Your task to perform on an android device: create a new album in the google photos Image 0: 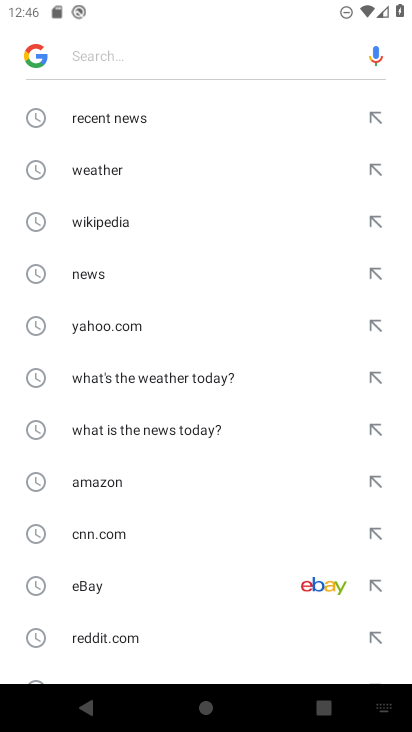
Step 0: press home button
Your task to perform on an android device: create a new album in the google photos Image 1: 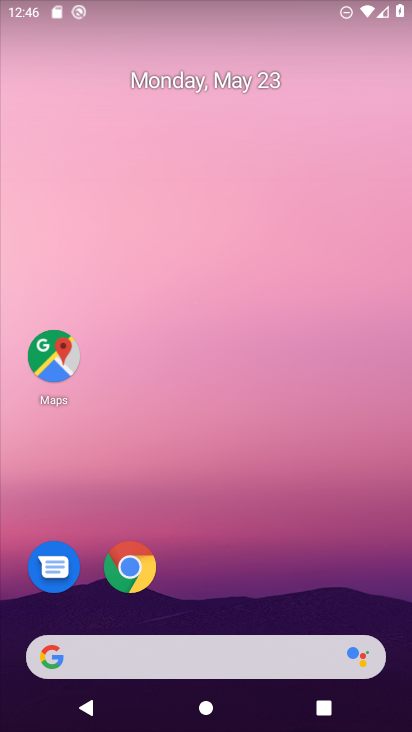
Step 1: drag from (185, 600) to (224, 227)
Your task to perform on an android device: create a new album in the google photos Image 2: 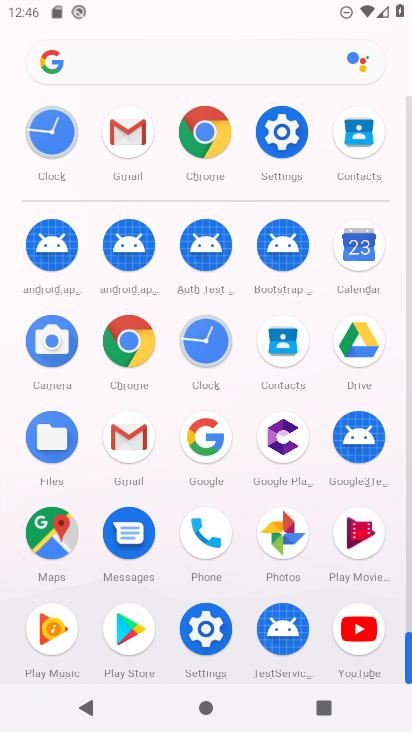
Step 2: click (275, 545)
Your task to perform on an android device: create a new album in the google photos Image 3: 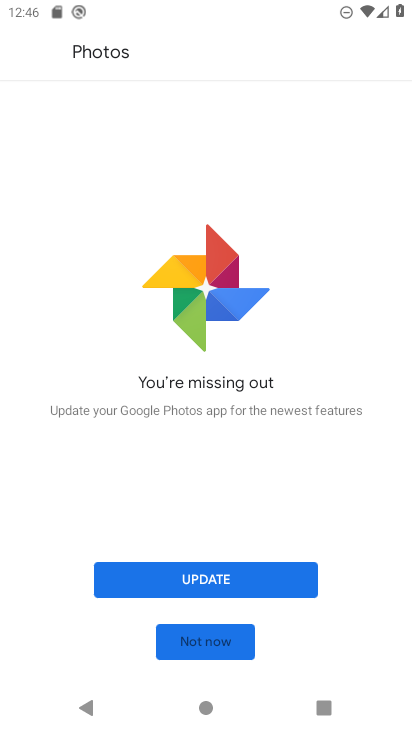
Step 3: click (192, 647)
Your task to perform on an android device: create a new album in the google photos Image 4: 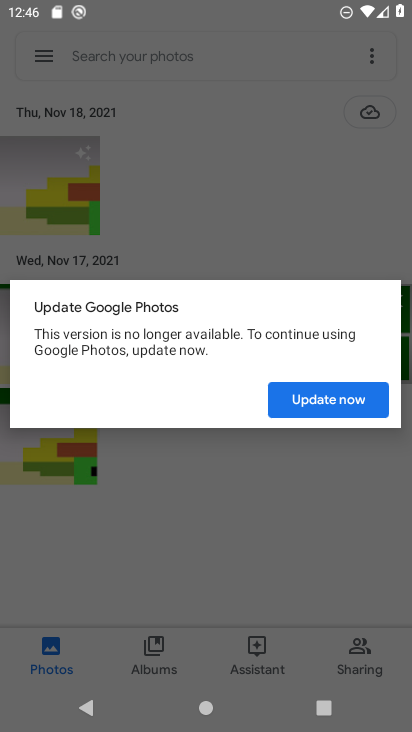
Step 4: click (358, 408)
Your task to perform on an android device: create a new album in the google photos Image 5: 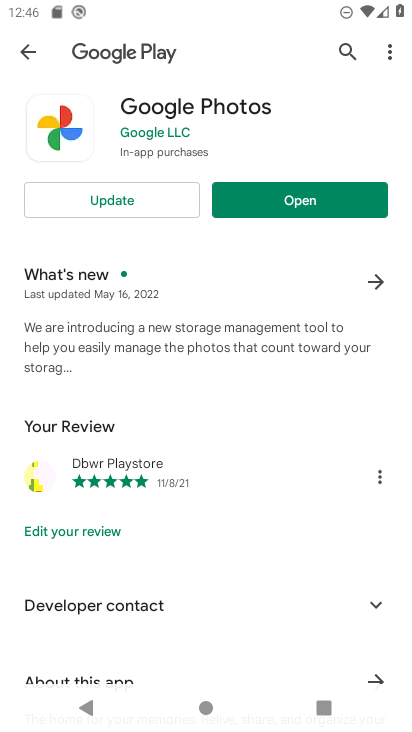
Step 5: click (283, 200)
Your task to perform on an android device: create a new album in the google photos Image 6: 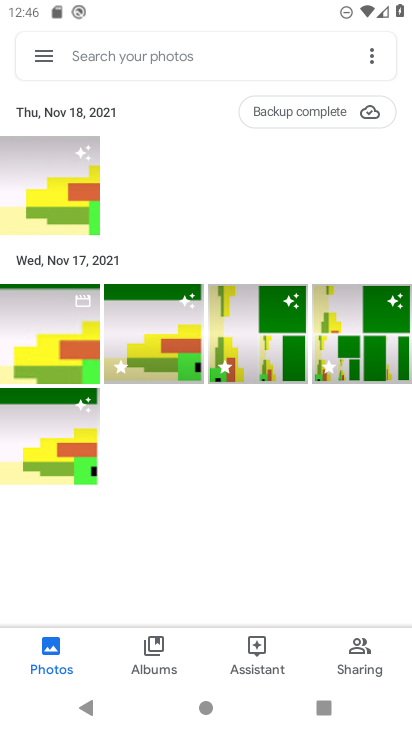
Step 6: click (166, 330)
Your task to perform on an android device: create a new album in the google photos Image 7: 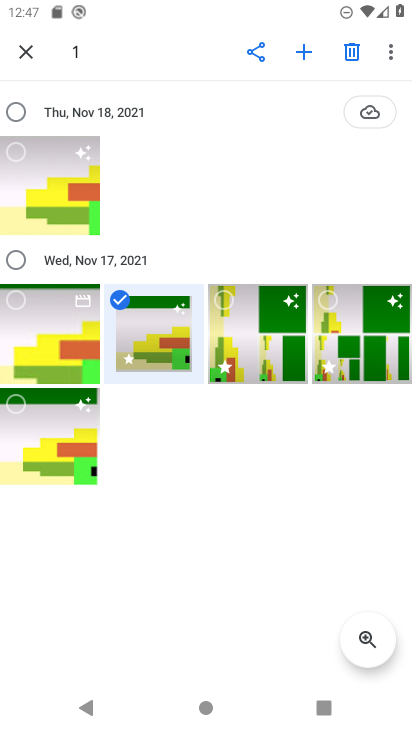
Step 7: click (226, 307)
Your task to perform on an android device: create a new album in the google photos Image 8: 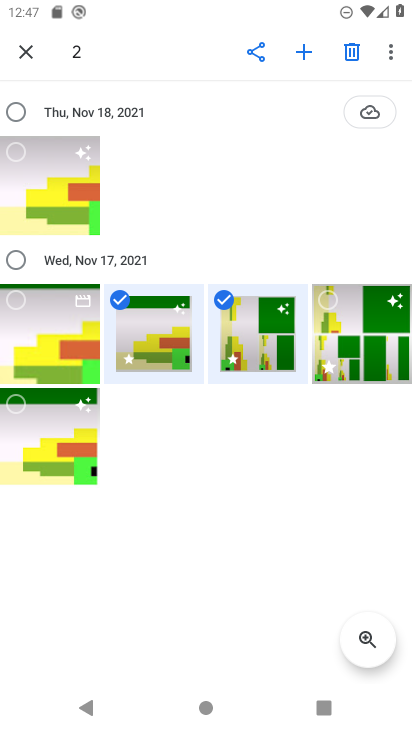
Step 8: click (313, 53)
Your task to perform on an android device: create a new album in the google photos Image 9: 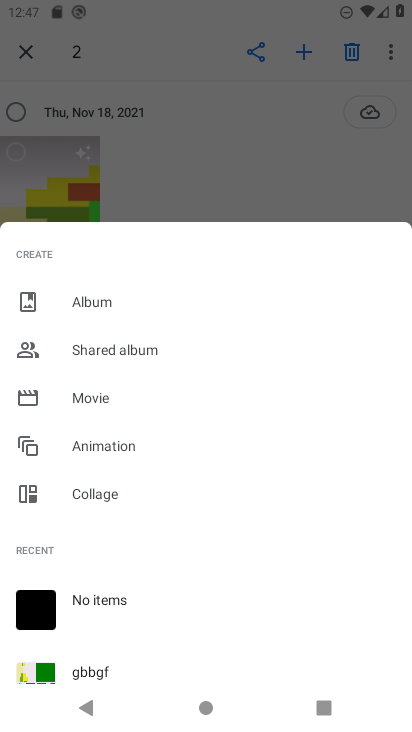
Step 9: click (123, 317)
Your task to perform on an android device: create a new album in the google photos Image 10: 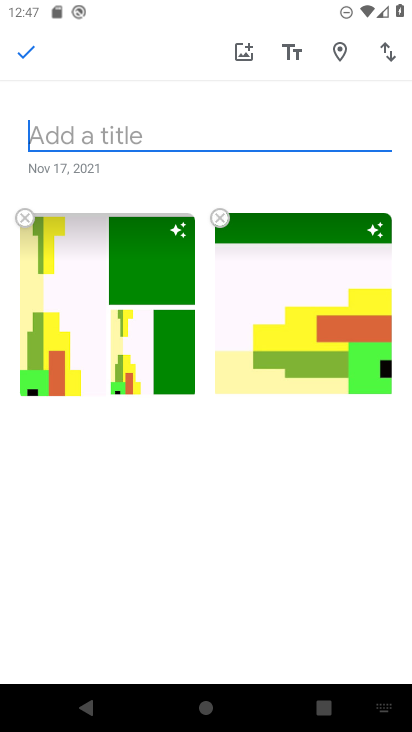
Step 10: type "llll"
Your task to perform on an android device: create a new album in the google photos Image 11: 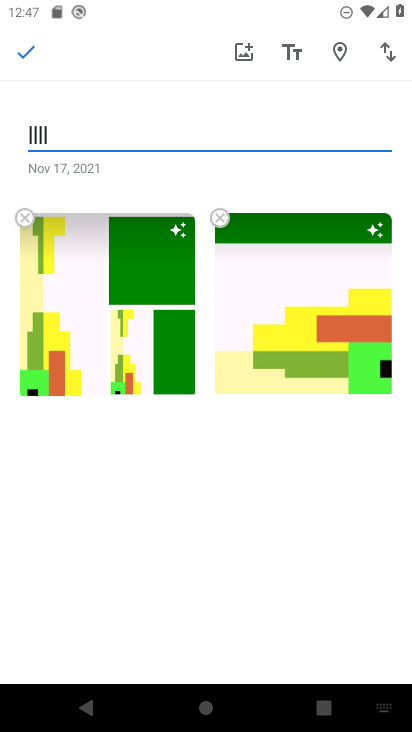
Step 11: click (24, 55)
Your task to perform on an android device: create a new album in the google photos Image 12: 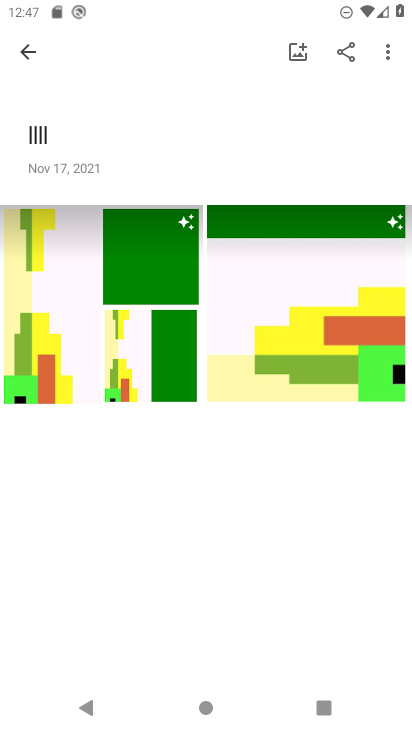
Step 12: task complete